Your task to perform on an android device: Open maps Image 0: 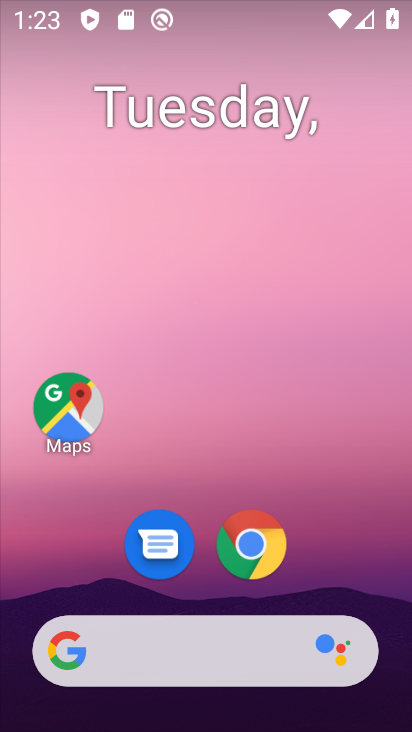
Step 0: click (75, 410)
Your task to perform on an android device: Open maps Image 1: 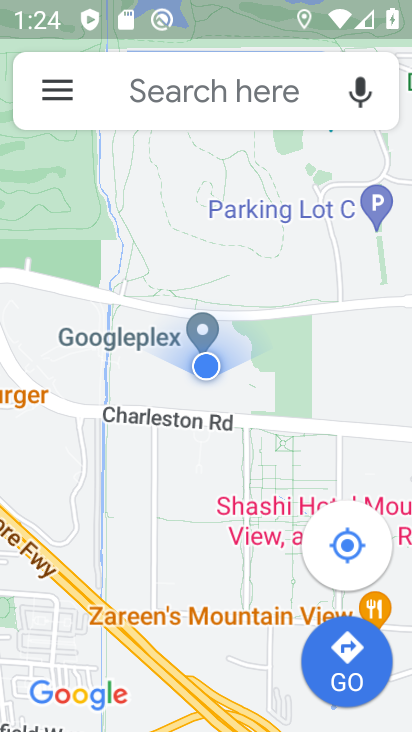
Step 1: task complete